Your task to perform on an android device: snooze an email in the gmail app Image 0: 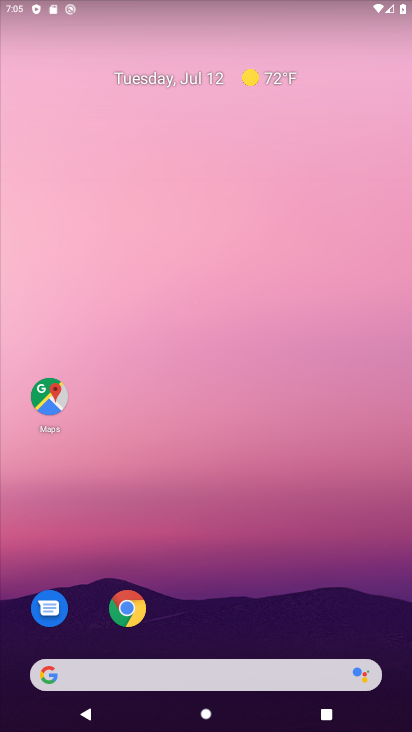
Step 0: drag from (247, 548) to (190, 59)
Your task to perform on an android device: snooze an email in the gmail app Image 1: 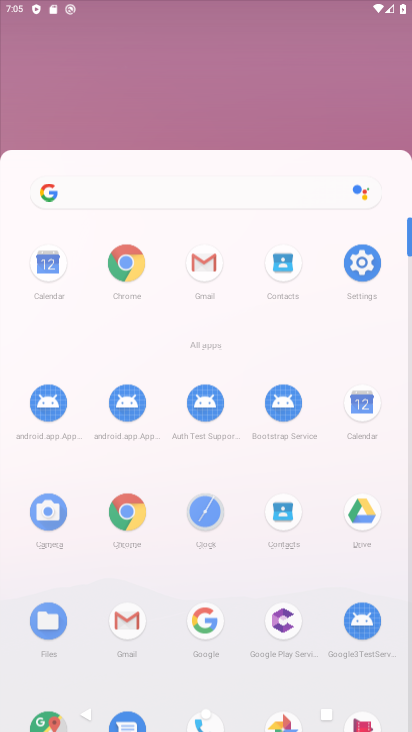
Step 1: click (190, 59)
Your task to perform on an android device: snooze an email in the gmail app Image 2: 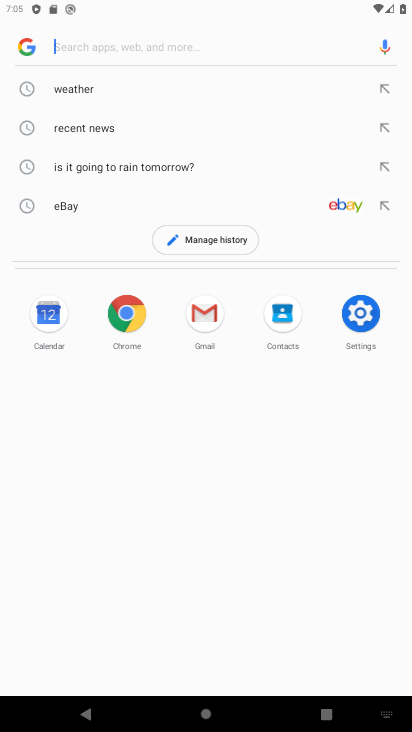
Step 2: click (198, 312)
Your task to perform on an android device: snooze an email in the gmail app Image 3: 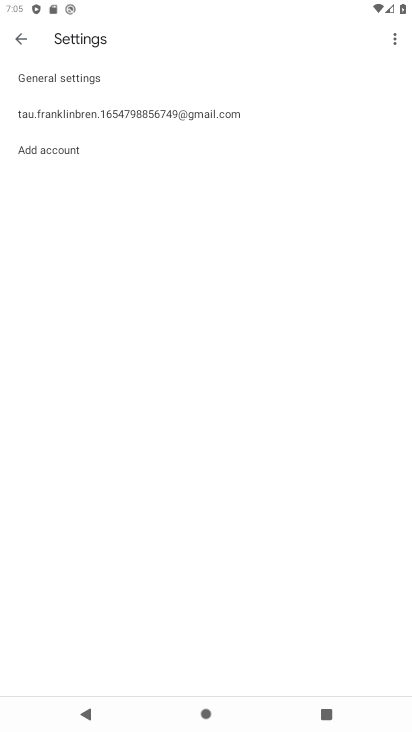
Step 3: click (18, 41)
Your task to perform on an android device: snooze an email in the gmail app Image 4: 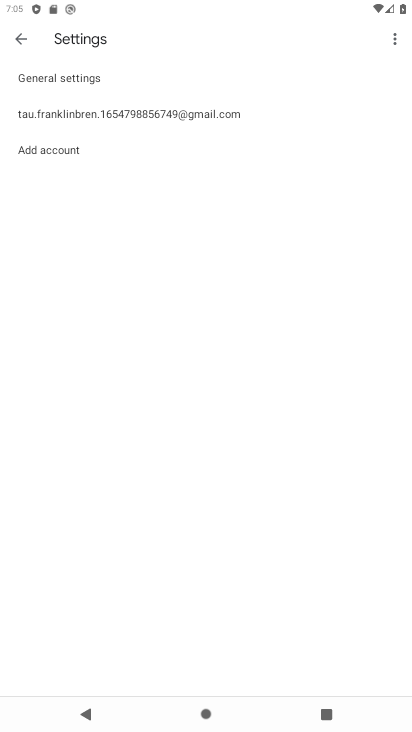
Step 4: click (18, 33)
Your task to perform on an android device: snooze an email in the gmail app Image 5: 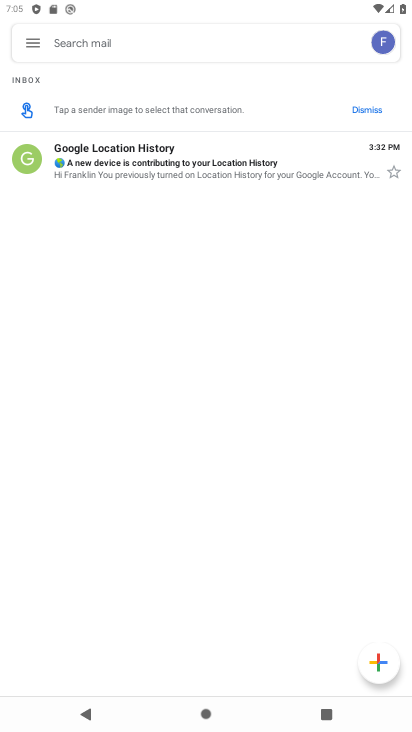
Step 5: click (96, 153)
Your task to perform on an android device: snooze an email in the gmail app Image 6: 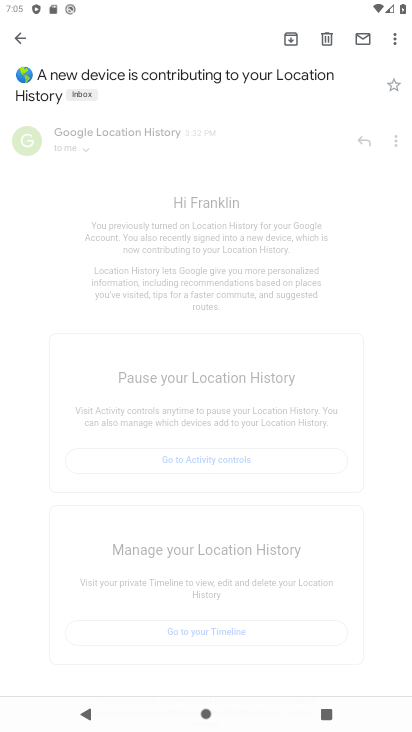
Step 6: click (397, 37)
Your task to perform on an android device: snooze an email in the gmail app Image 7: 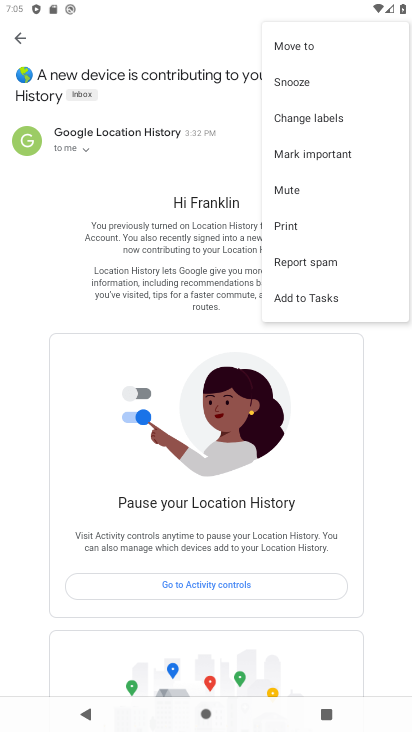
Step 7: click (290, 84)
Your task to perform on an android device: snooze an email in the gmail app Image 8: 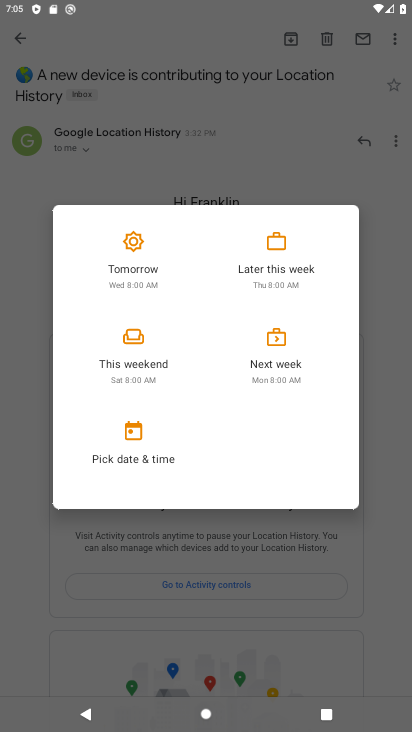
Step 8: click (125, 252)
Your task to perform on an android device: snooze an email in the gmail app Image 9: 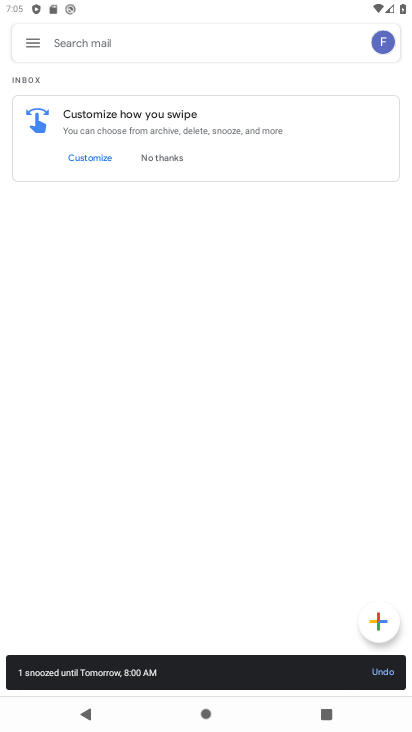
Step 9: task complete